Your task to perform on an android device: turn on improve location accuracy Image 0: 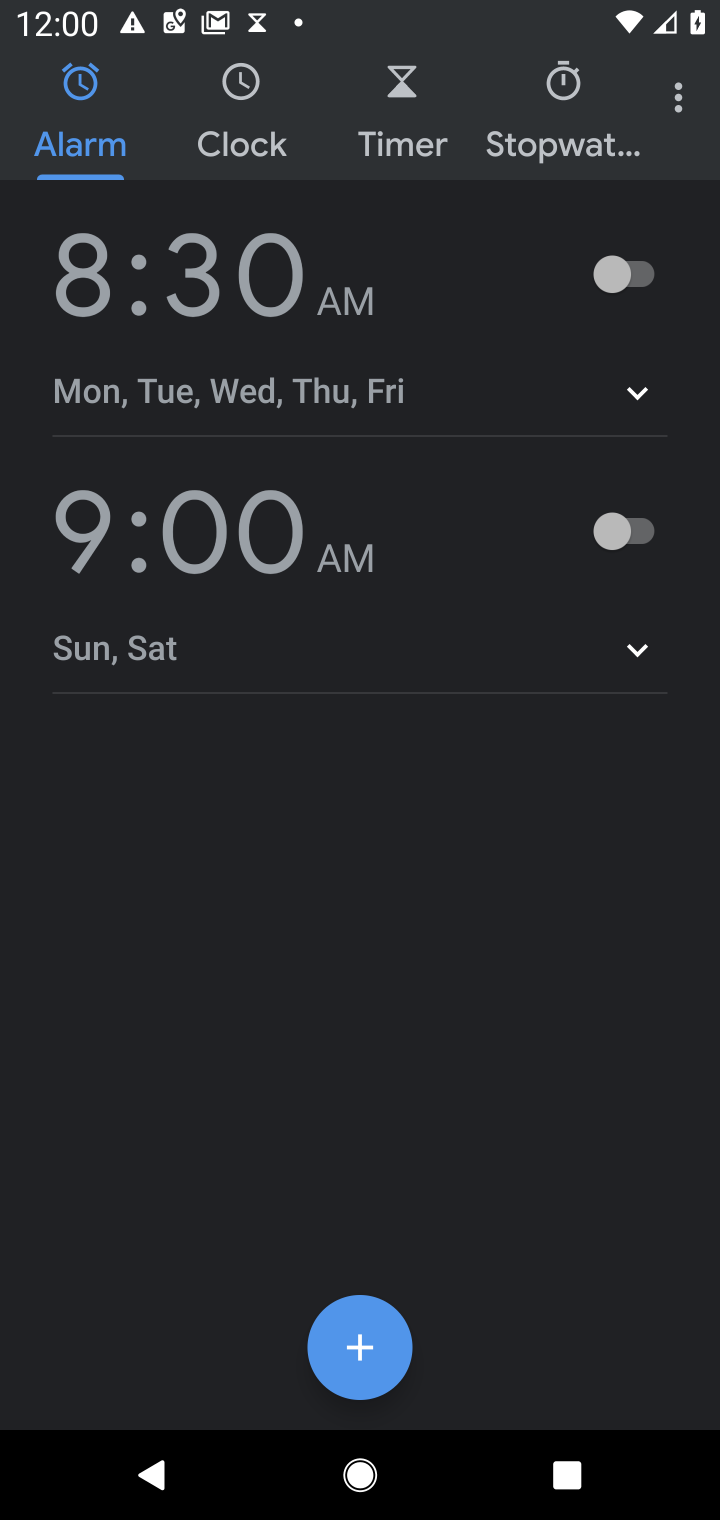
Step 0: click (689, 80)
Your task to perform on an android device: turn on improve location accuracy Image 1: 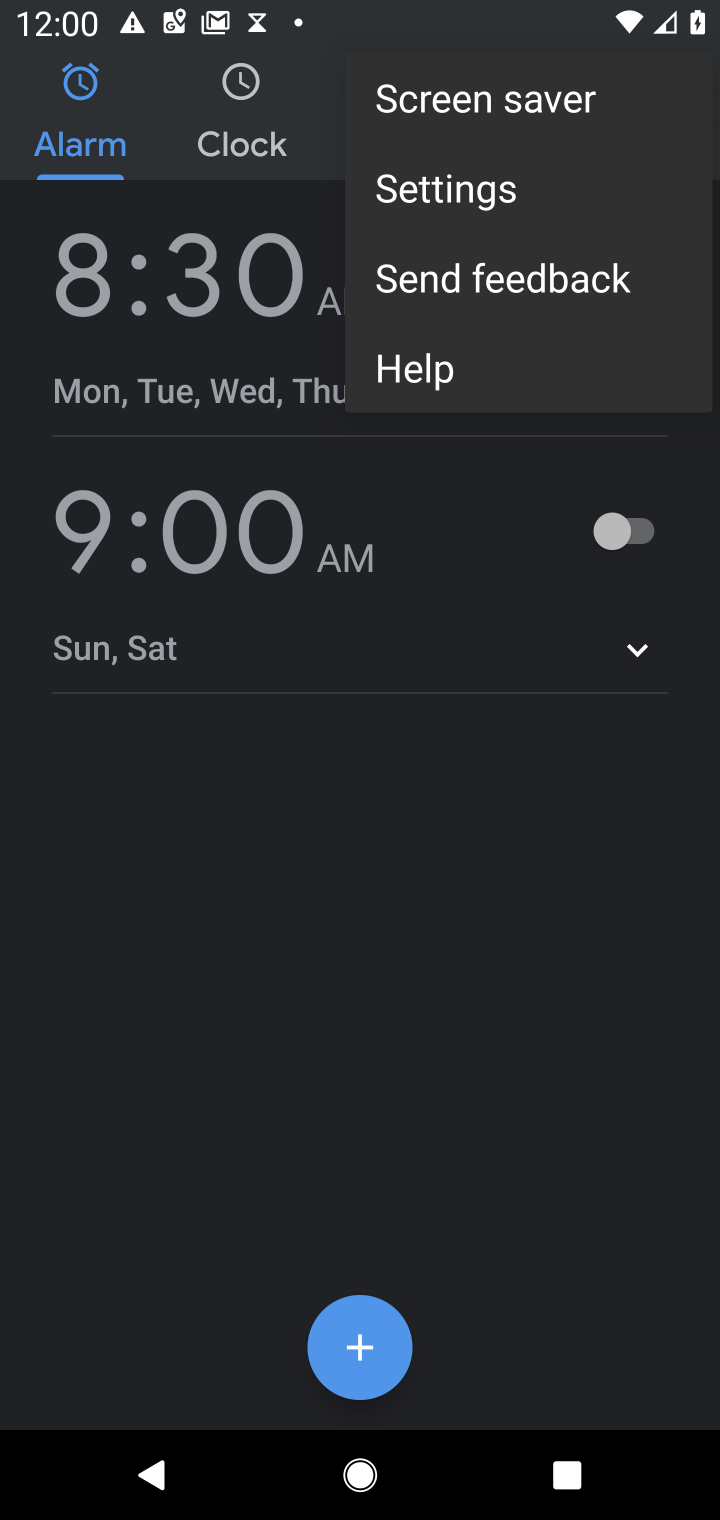
Step 1: click (538, 202)
Your task to perform on an android device: turn on improve location accuracy Image 2: 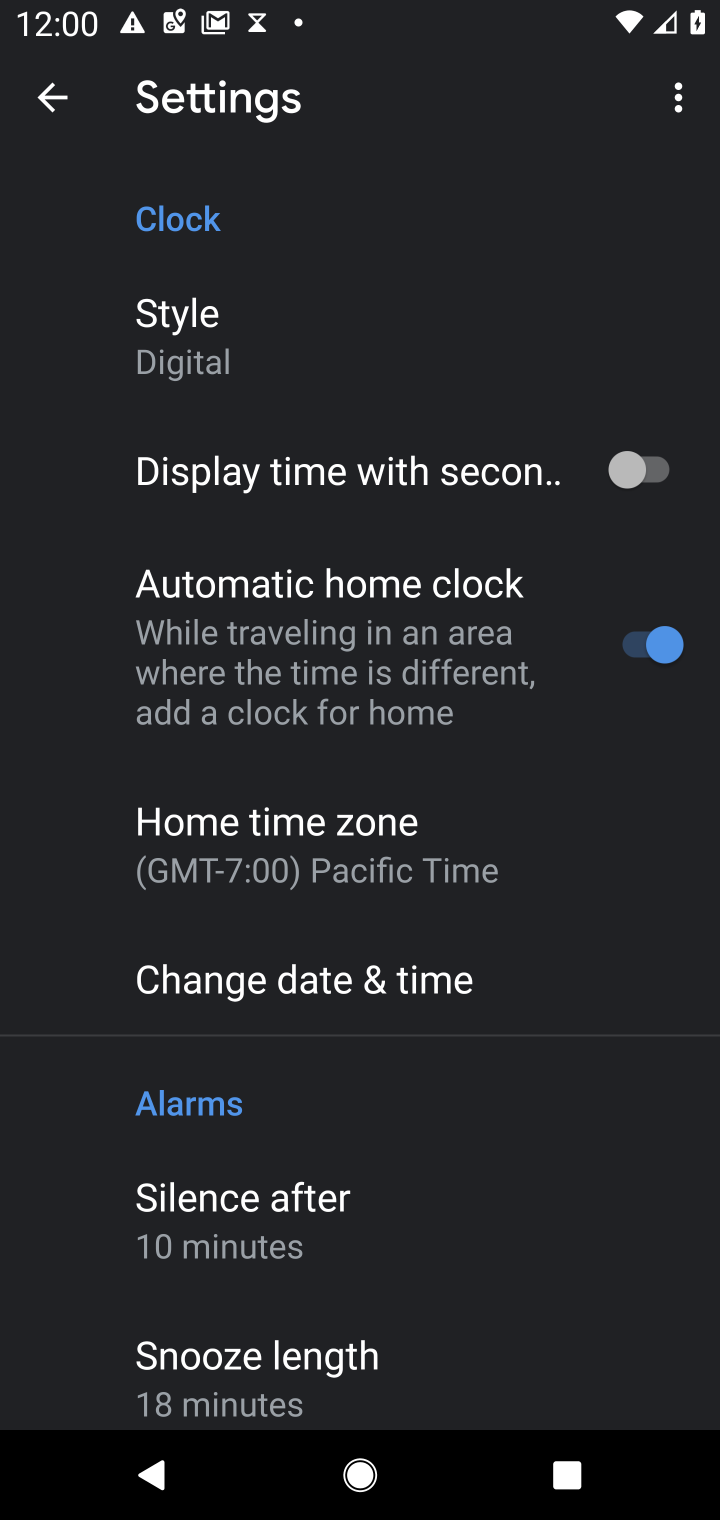
Step 2: drag from (326, 1225) to (326, 359)
Your task to perform on an android device: turn on improve location accuracy Image 3: 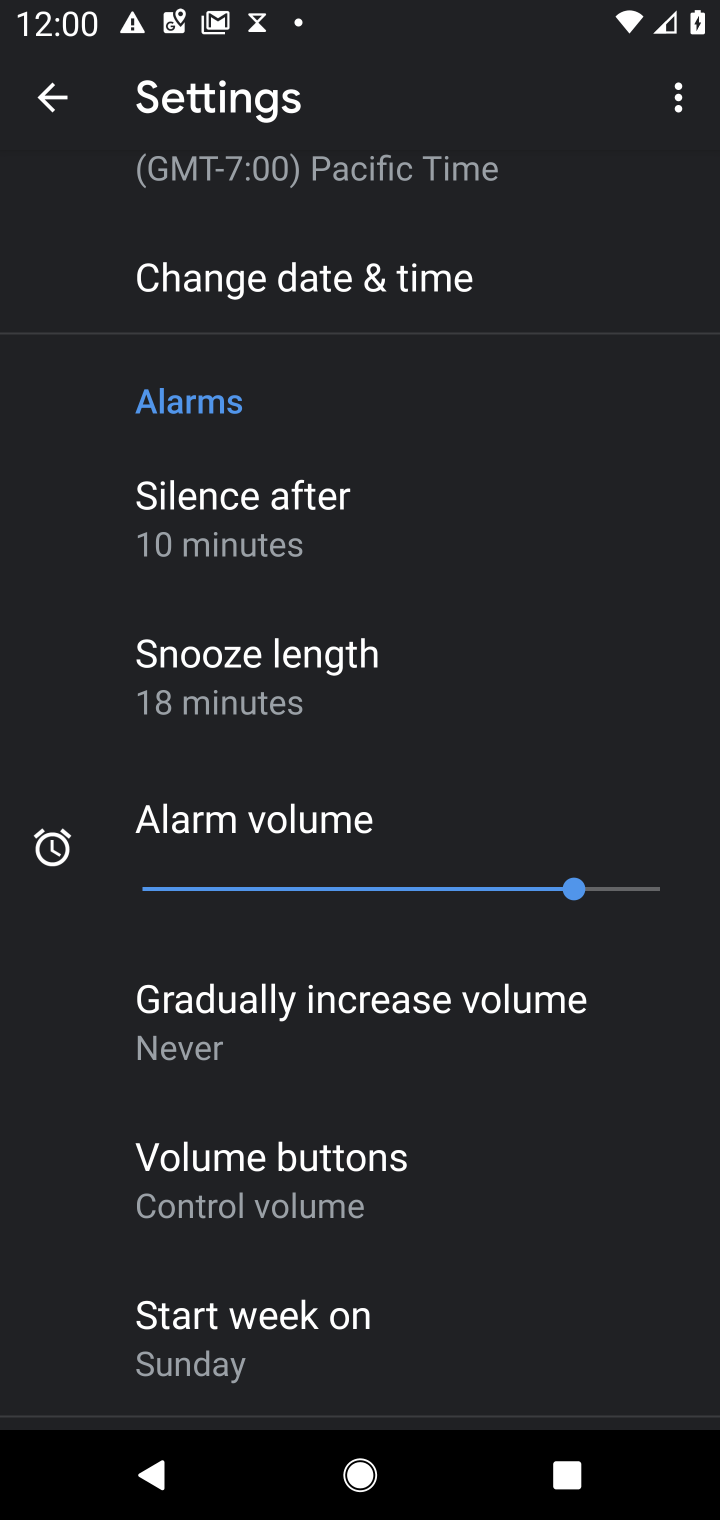
Step 3: drag from (481, 1102) to (493, 239)
Your task to perform on an android device: turn on improve location accuracy Image 4: 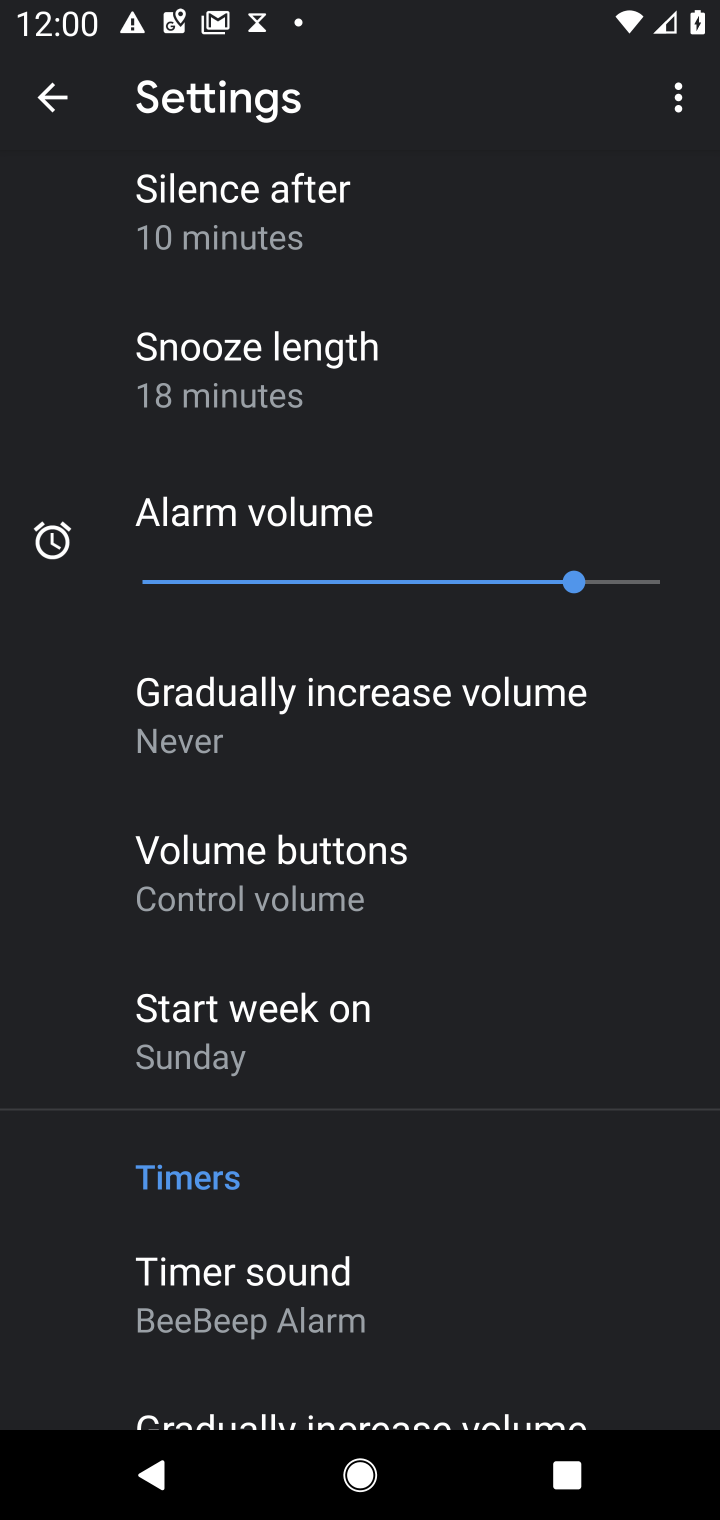
Step 4: press home button
Your task to perform on an android device: turn on improve location accuracy Image 5: 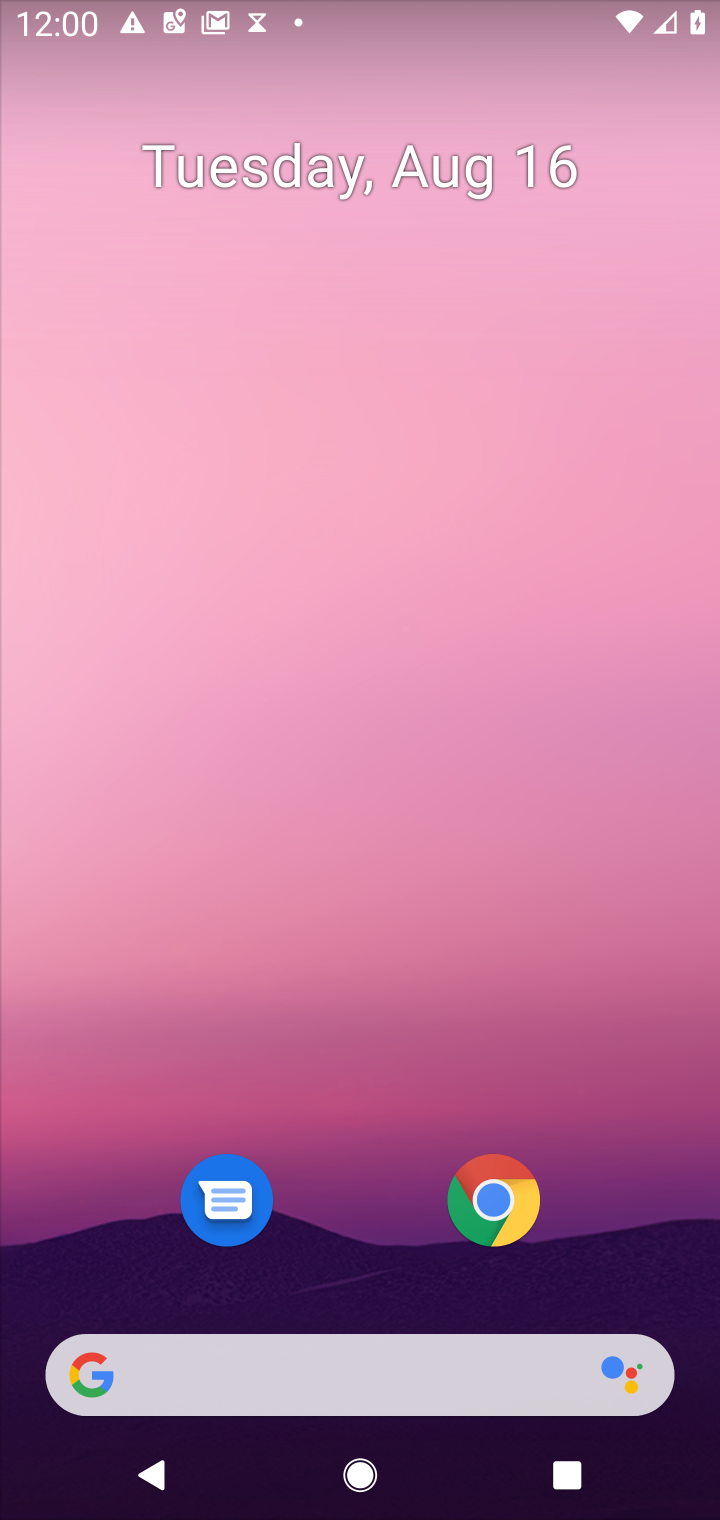
Step 5: drag from (327, 1172) to (327, 120)
Your task to perform on an android device: turn on improve location accuracy Image 6: 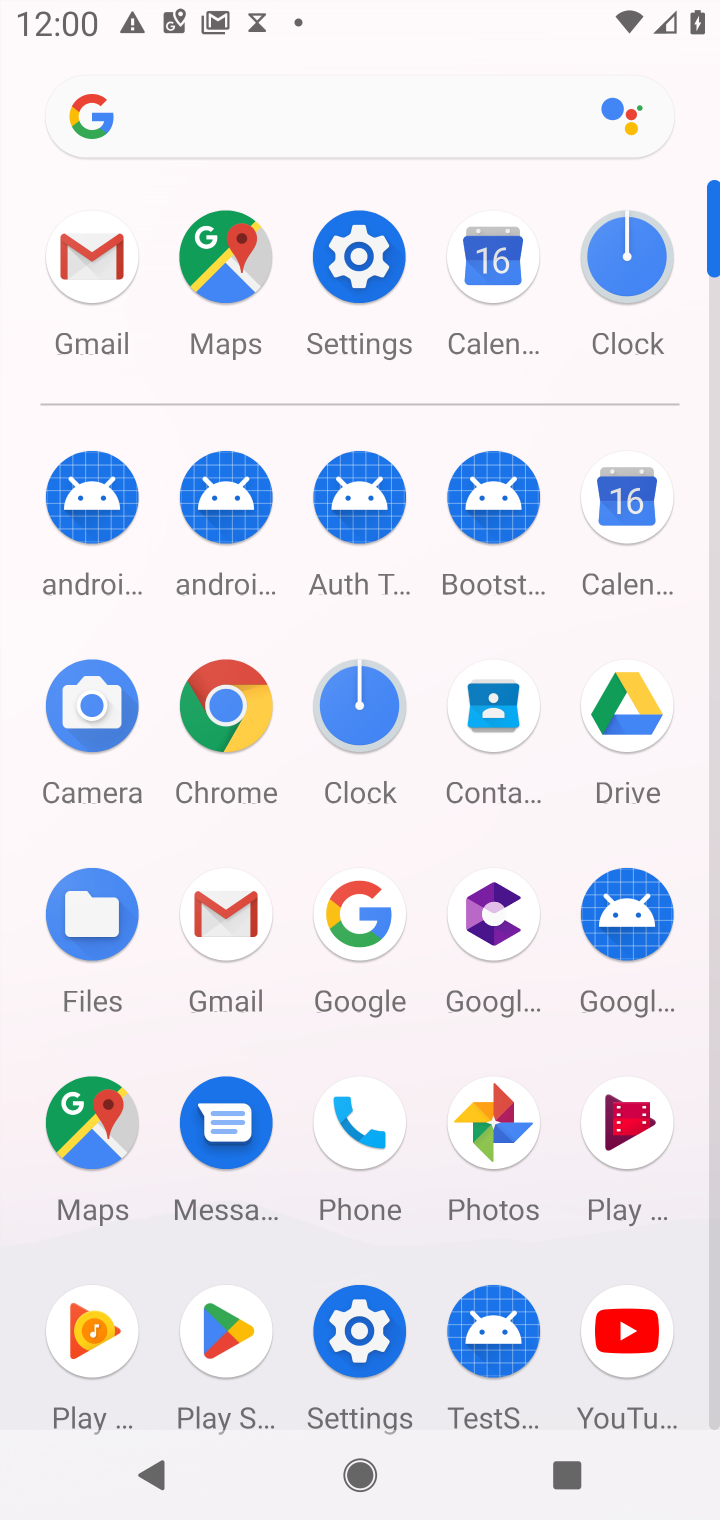
Step 6: click (367, 266)
Your task to perform on an android device: turn on improve location accuracy Image 7: 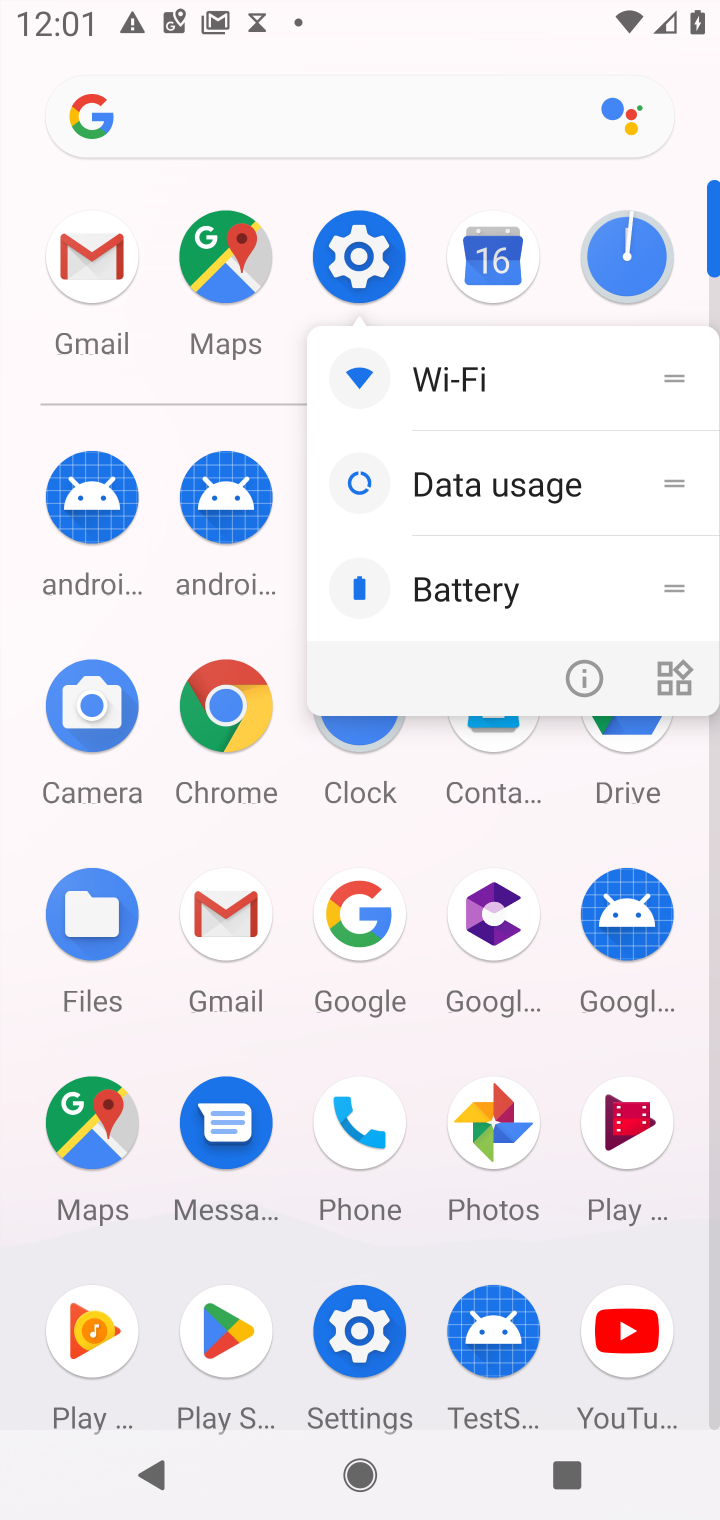
Step 7: click (367, 248)
Your task to perform on an android device: turn on improve location accuracy Image 8: 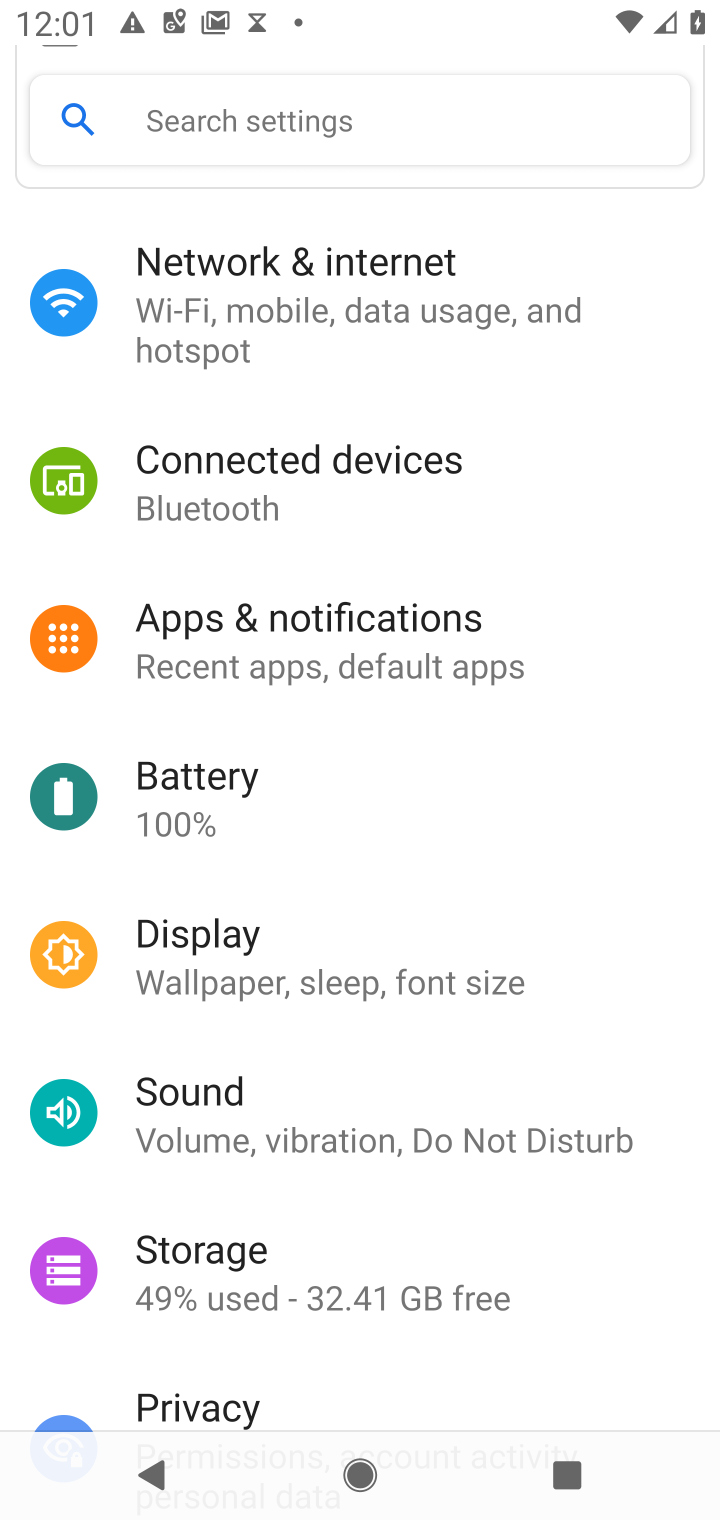
Step 8: drag from (332, 1296) to (481, 480)
Your task to perform on an android device: turn on improve location accuracy Image 9: 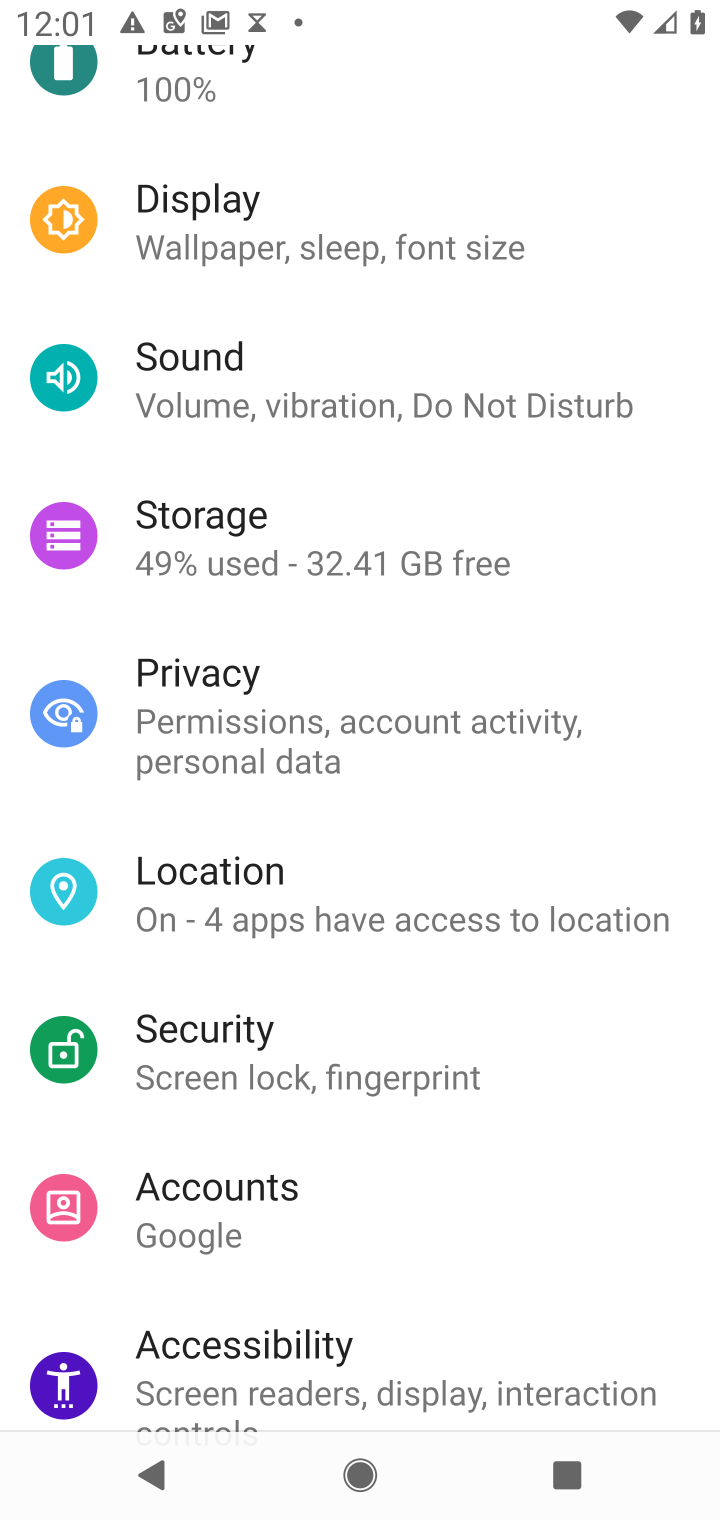
Step 9: click (269, 878)
Your task to perform on an android device: turn on improve location accuracy Image 10: 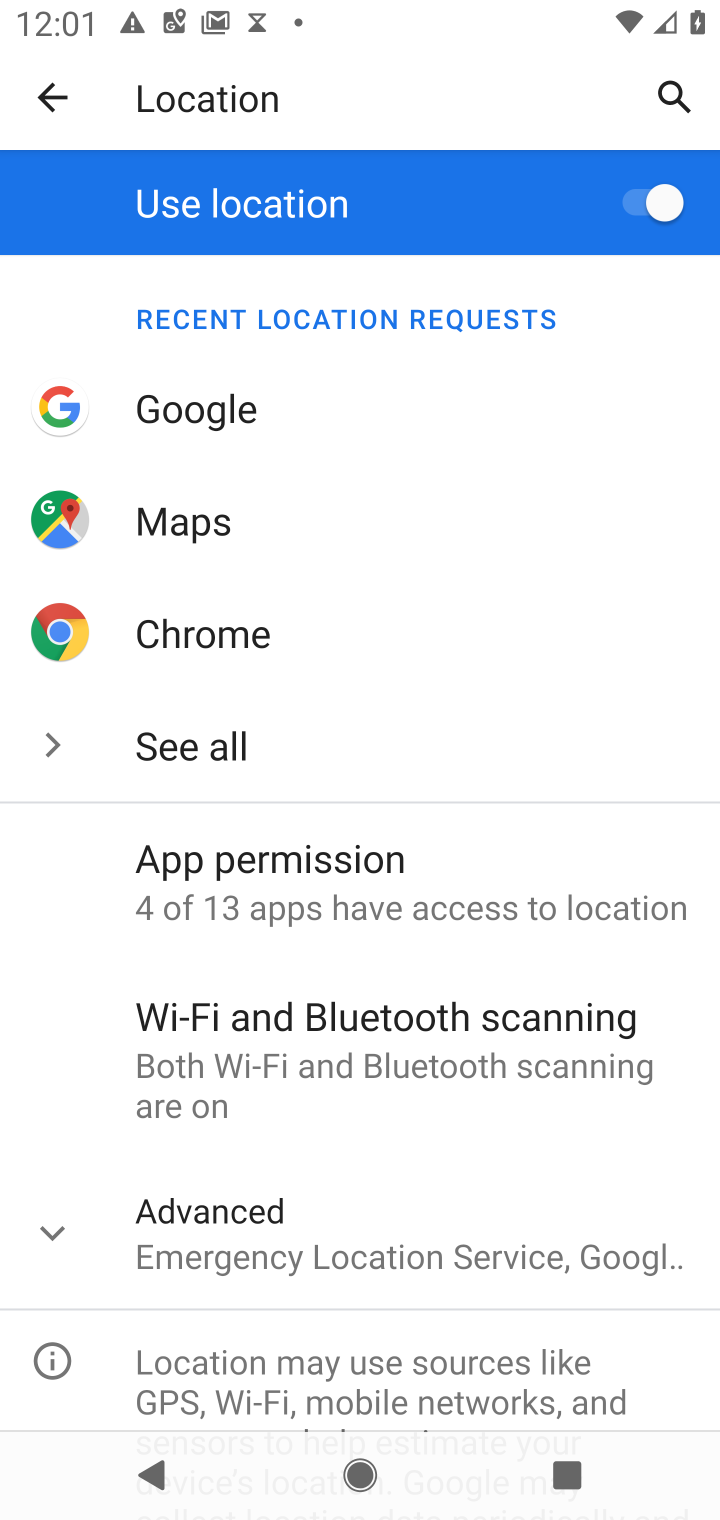
Step 10: click (326, 1211)
Your task to perform on an android device: turn on improve location accuracy Image 11: 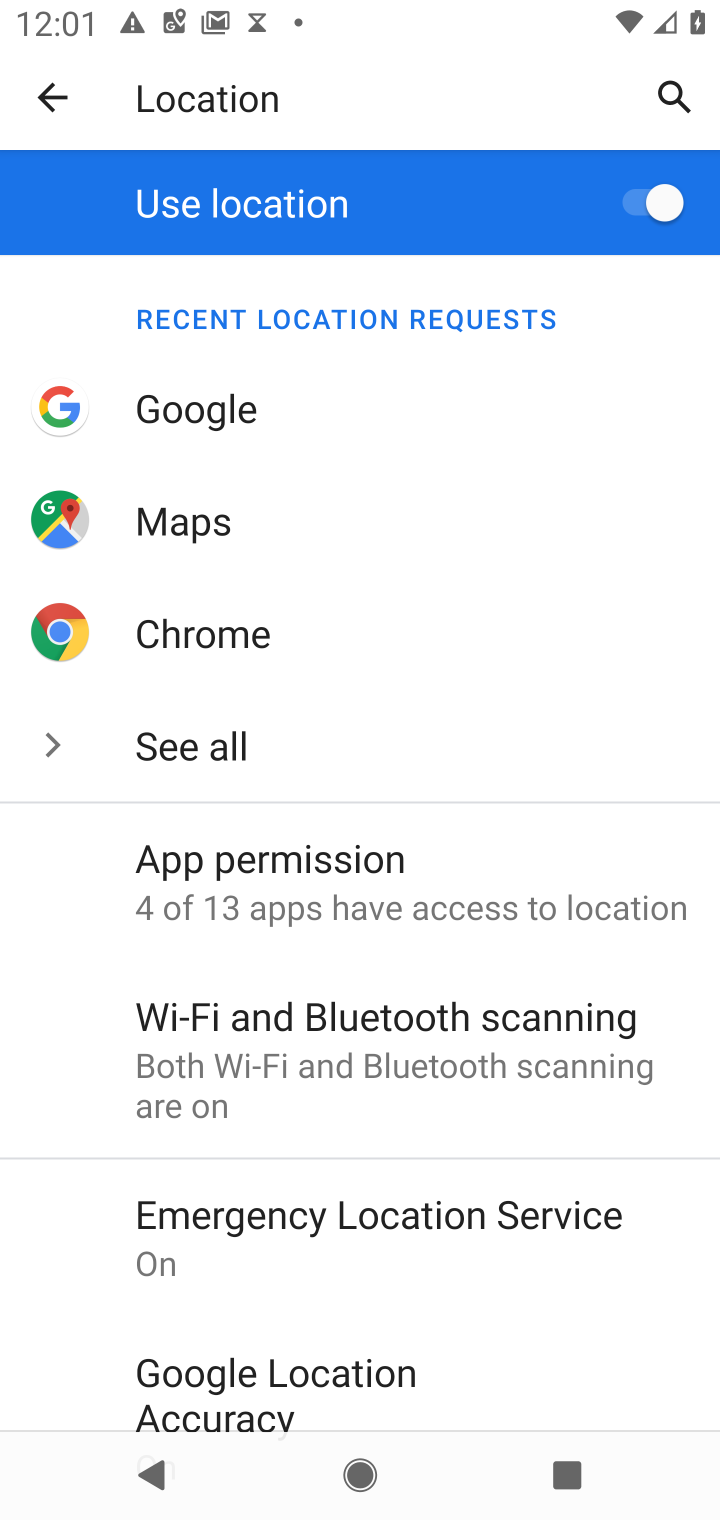
Step 11: click (399, 1337)
Your task to perform on an android device: turn on improve location accuracy Image 12: 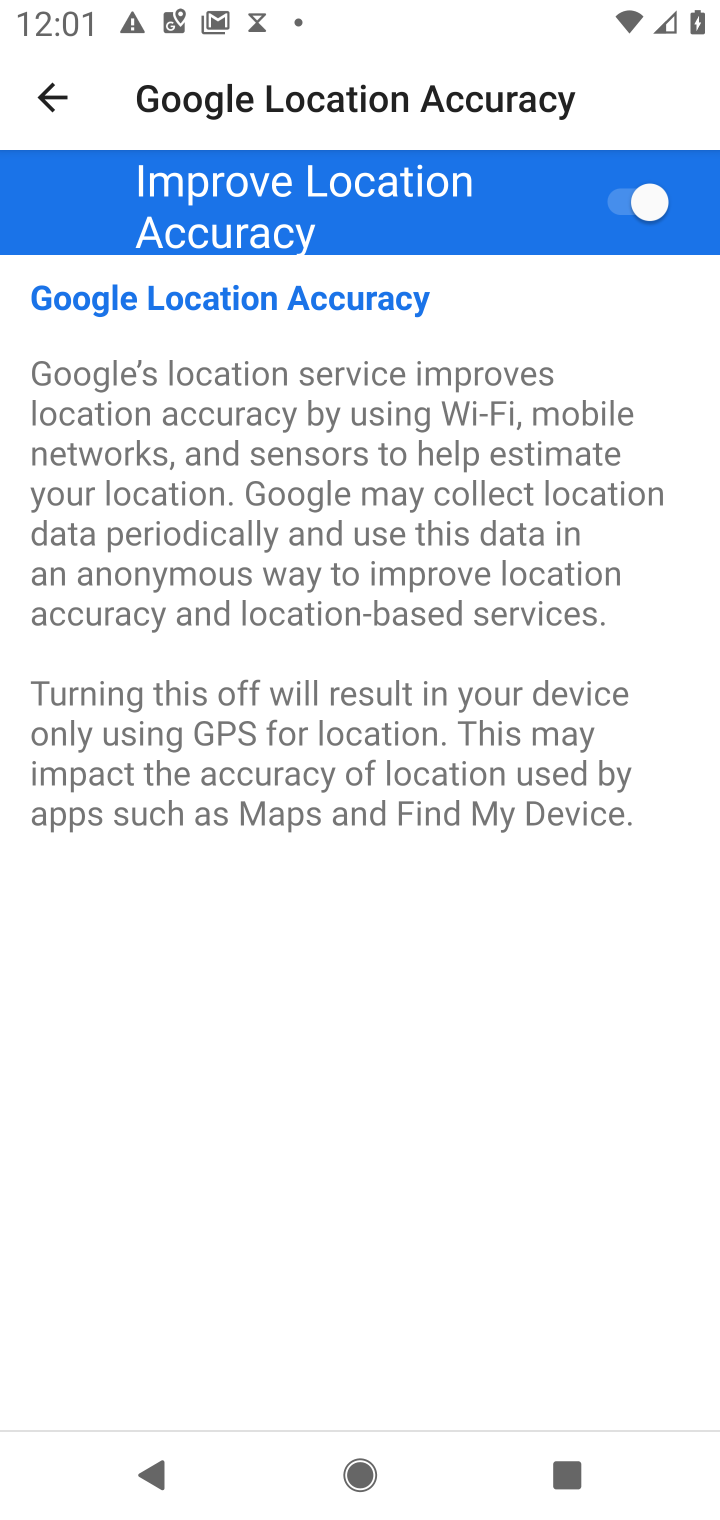
Step 12: task complete